Your task to perform on an android device: What's the weather going to be tomorrow? Image 0: 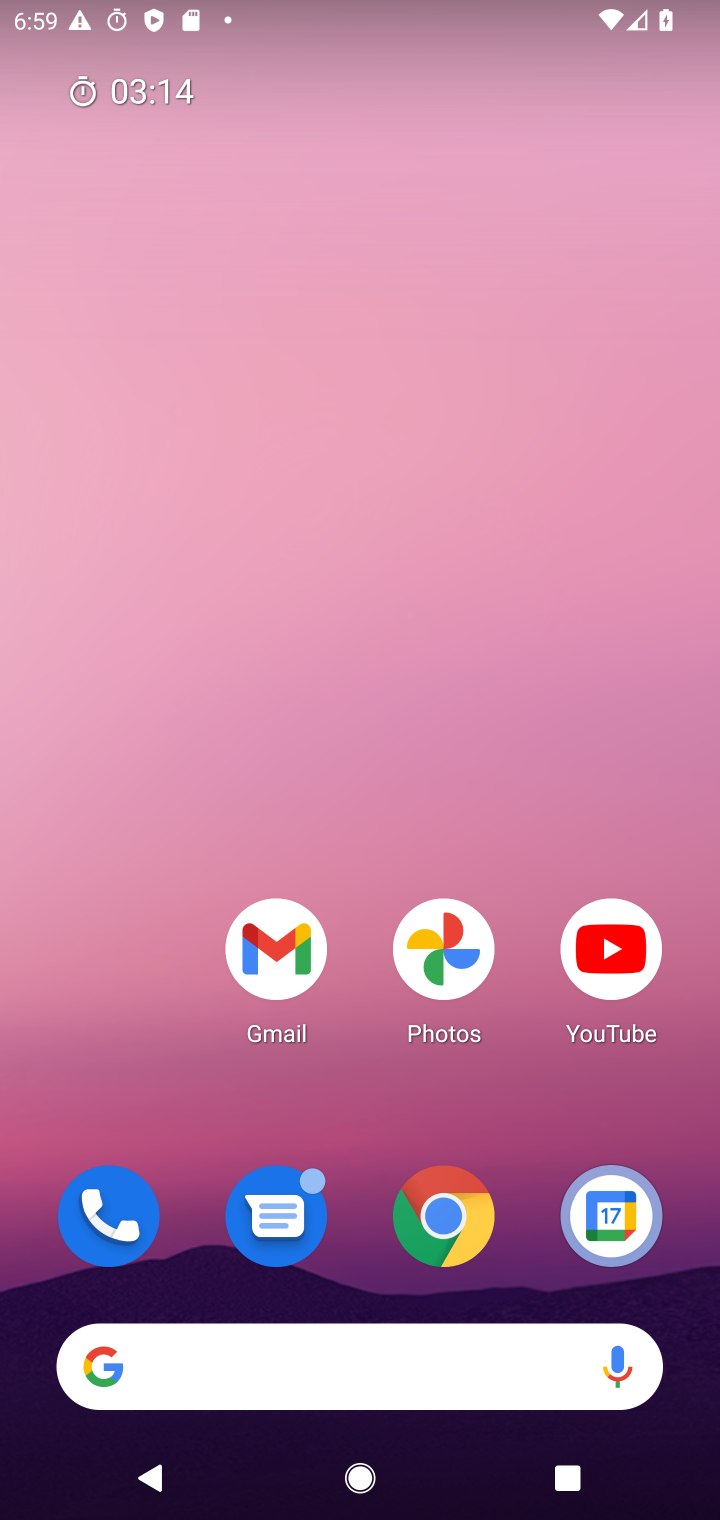
Step 0: drag from (546, 1014) to (617, 91)
Your task to perform on an android device: What's the weather going to be tomorrow? Image 1: 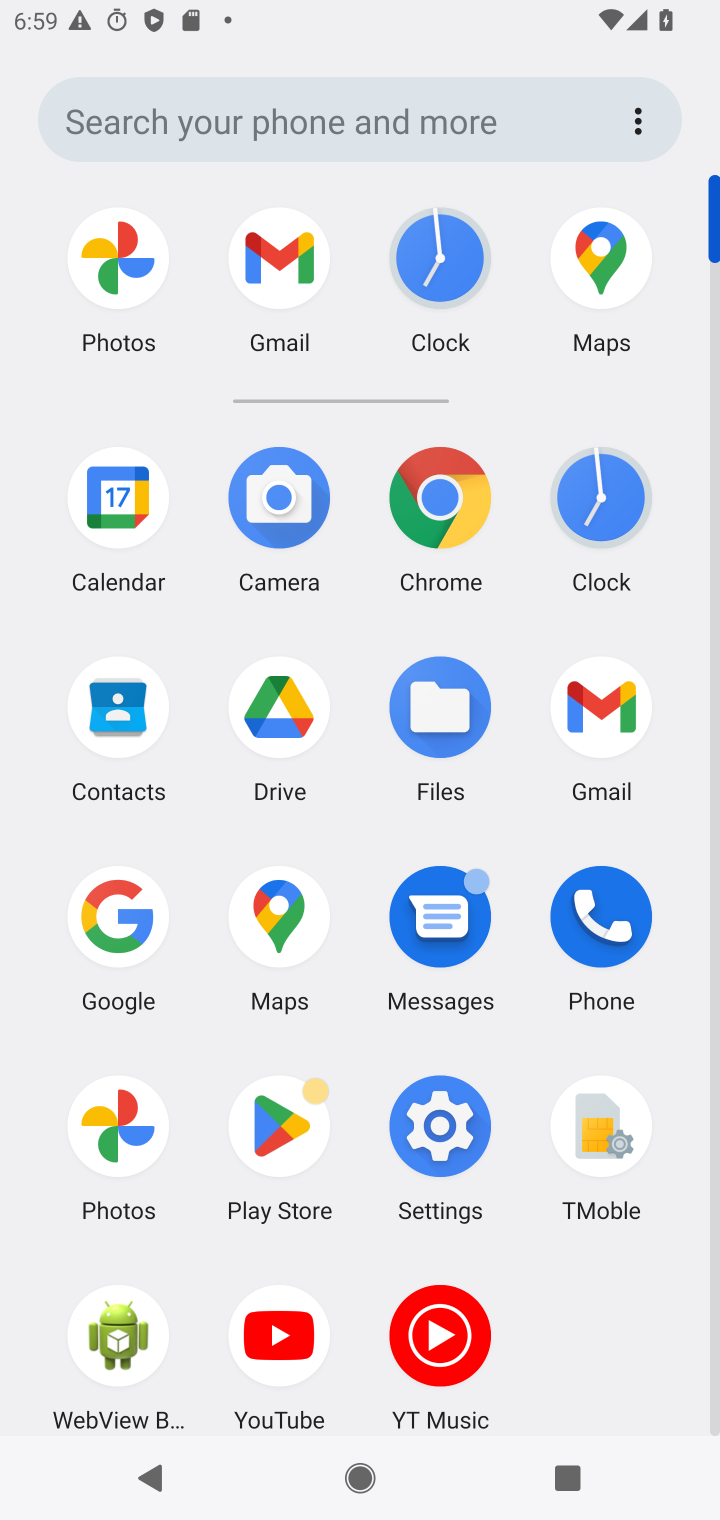
Step 1: click (412, 486)
Your task to perform on an android device: What's the weather going to be tomorrow? Image 2: 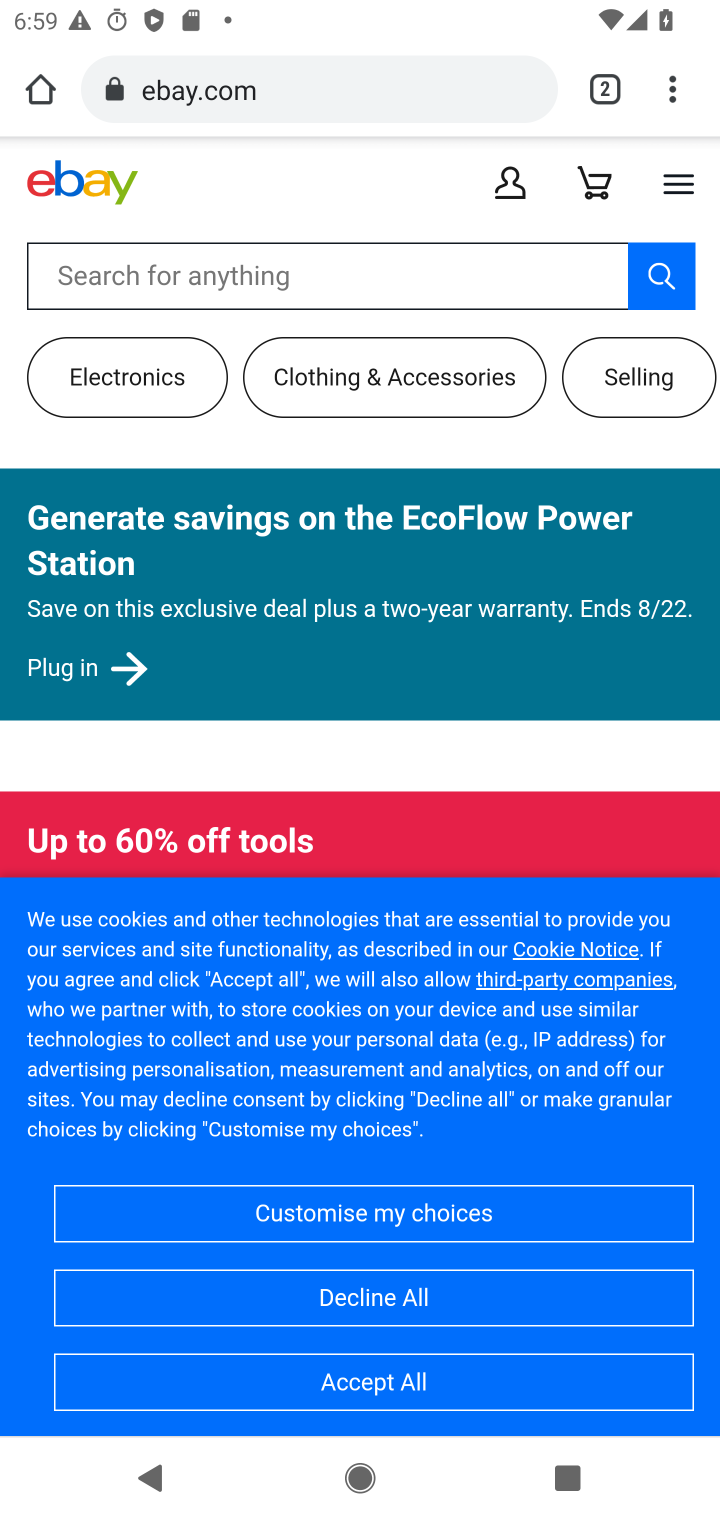
Step 2: click (251, 73)
Your task to perform on an android device: What's the weather going to be tomorrow? Image 3: 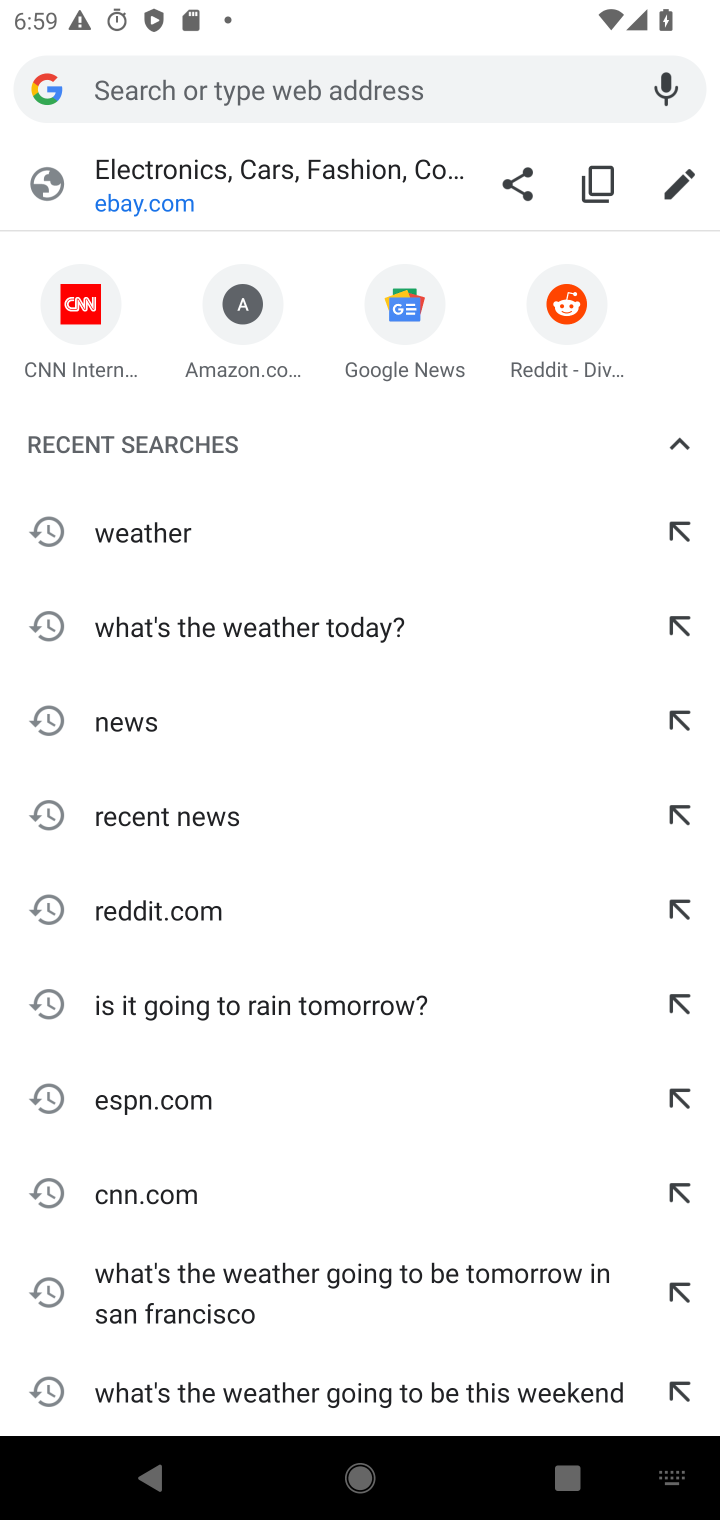
Step 3: type "What's the weather going to be tomorrow?"
Your task to perform on an android device: What's the weather going to be tomorrow? Image 4: 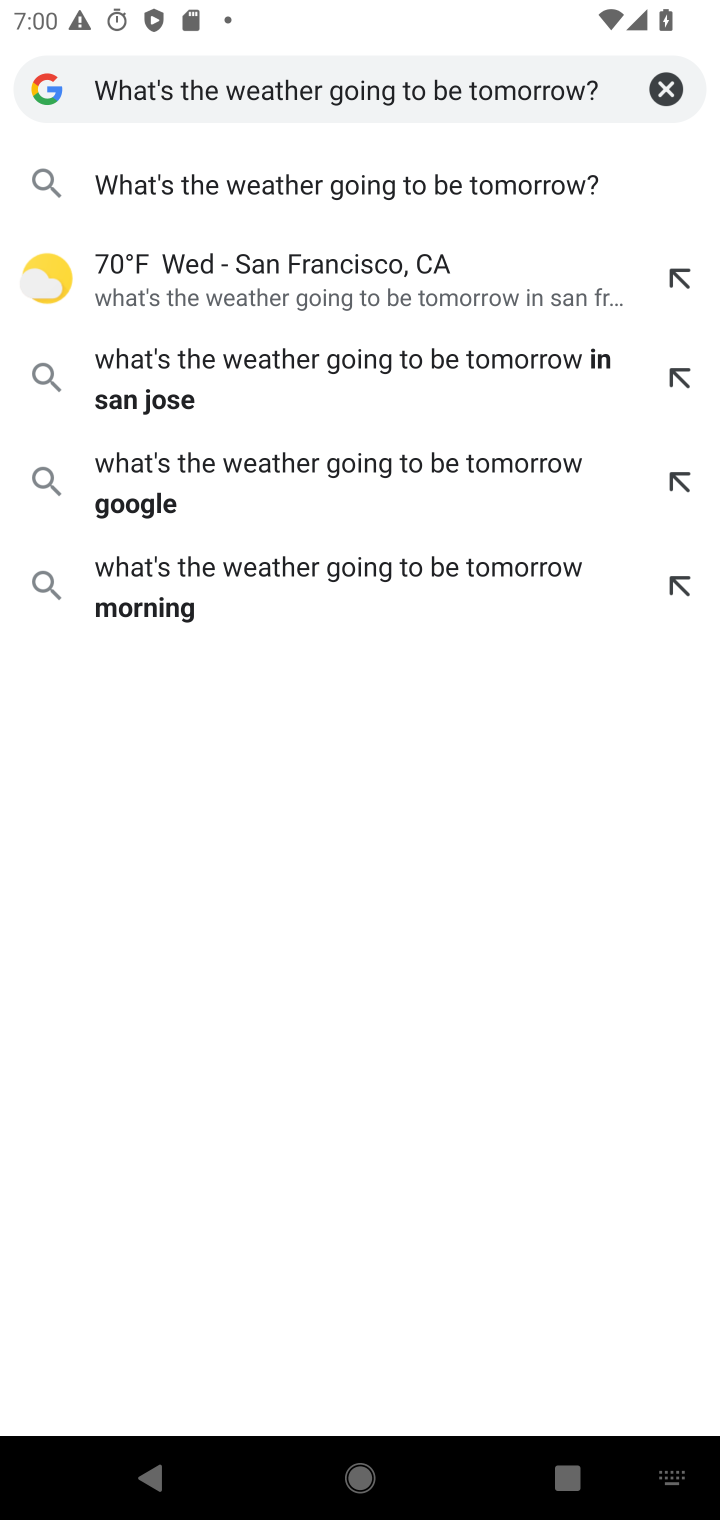
Step 4: click (470, 177)
Your task to perform on an android device: What's the weather going to be tomorrow? Image 5: 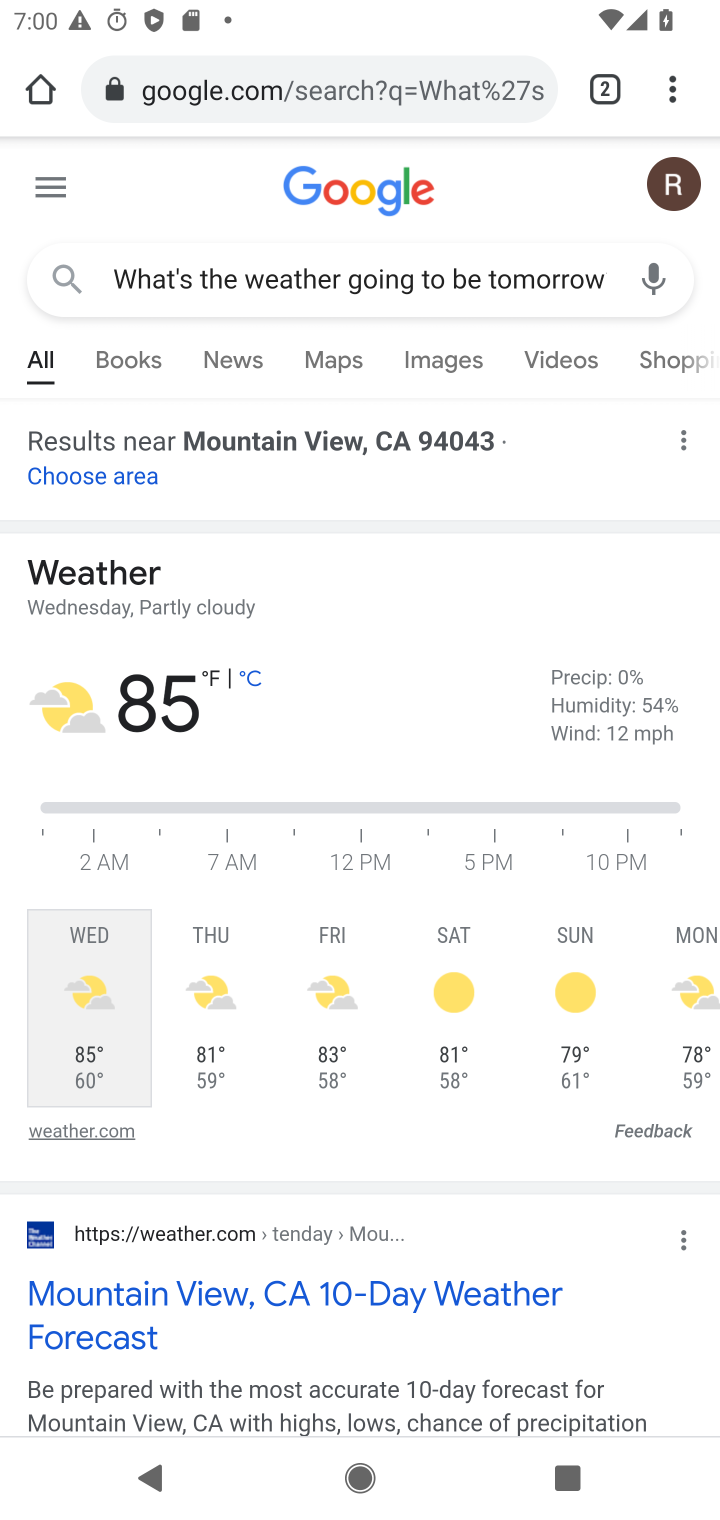
Step 5: task complete